Your task to perform on an android device: Find coffee shops on Maps Image 0: 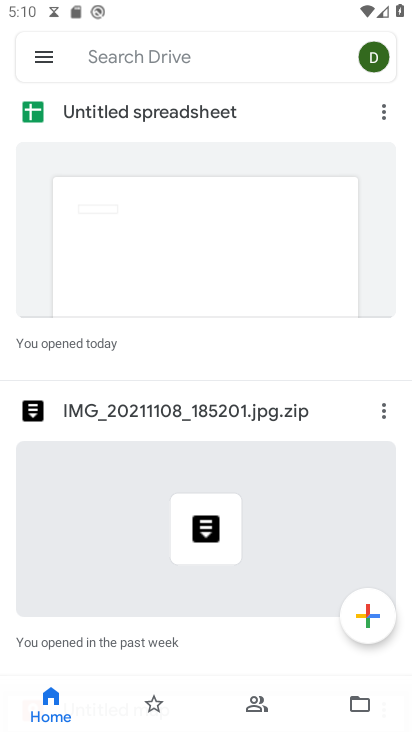
Step 0: press home button
Your task to perform on an android device: Find coffee shops on Maps Image 1: 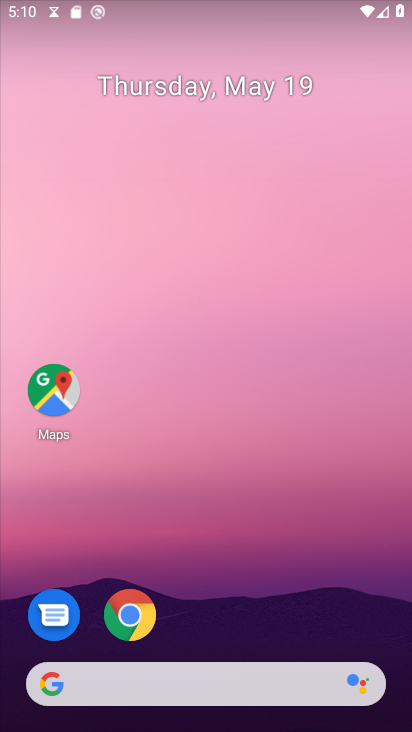
Step 1: drag from (215, 662) to (227, 34)
Your task to perform on an android device: Find coffee shops on Maps Image 2: 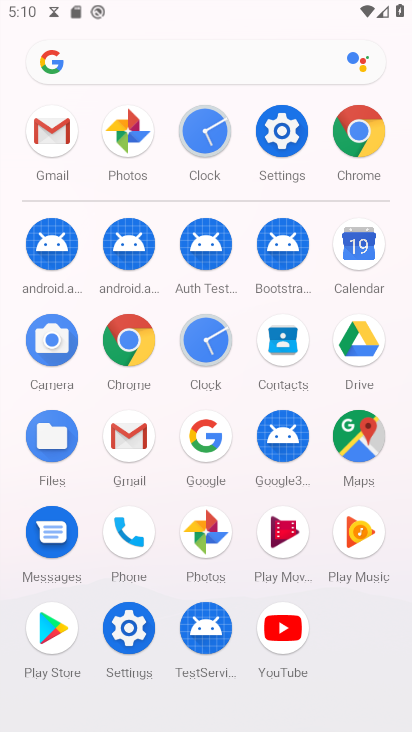
Step 2: click (344, 444)
Your task to perform on an android device: Find coffee shops on Maps Image 3: 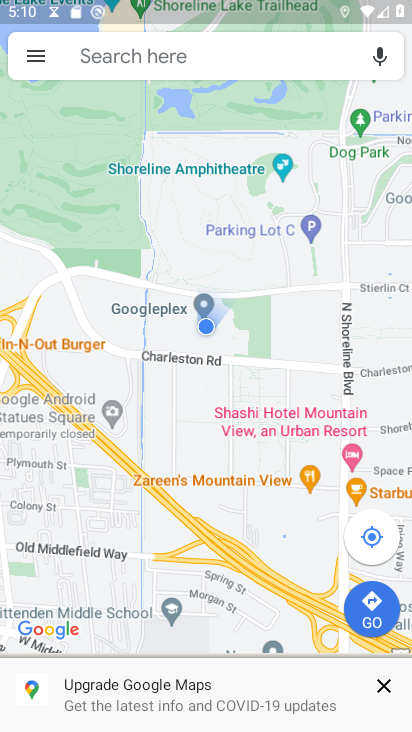
Step 3: click (36, 52)
Your task to perform on an android device: Find coffee shops on Maps Image 4: 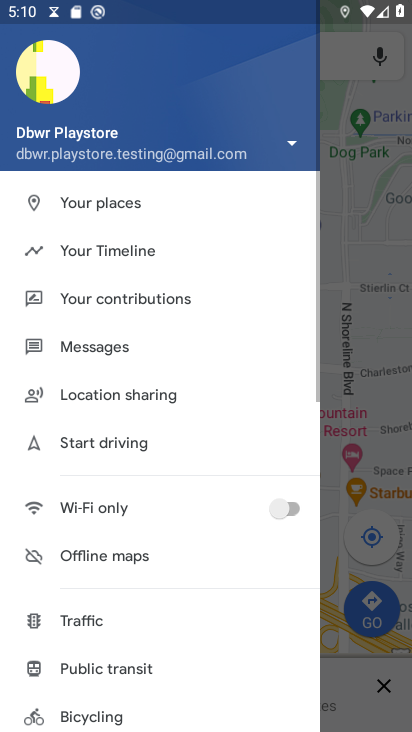
Step 4: click (351, 167)
Your task to perform on an android device: Find coffee shops on Maps Image 5: 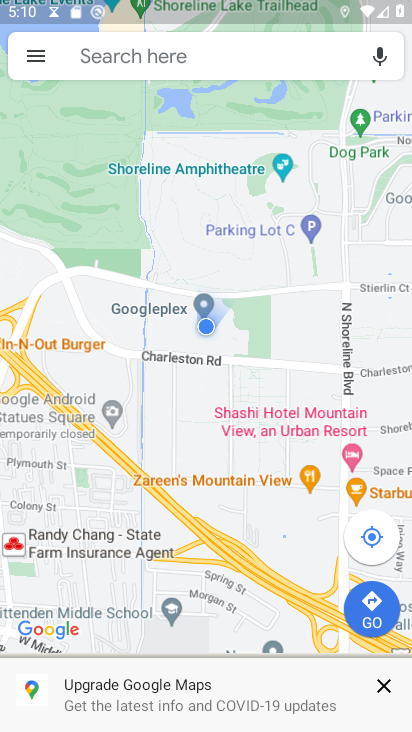
Step 5: click (261, 48)
Your task to perform on an android device: Find coffee shops on Maps Image 6: 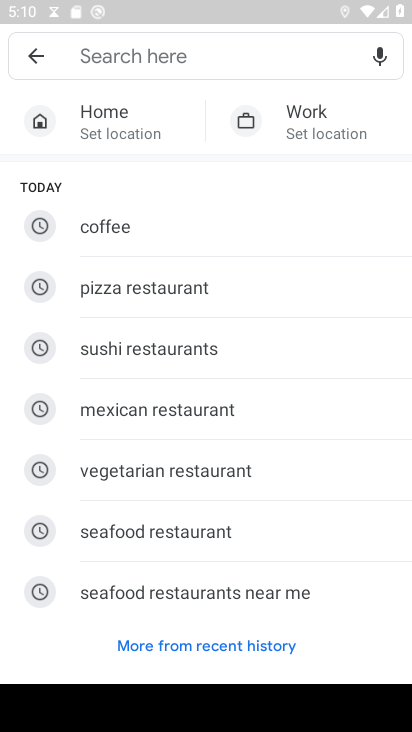
Step 6: type "coffee shops"
Your task to perform on an android device: Find coffee shops on Maps Image 7: 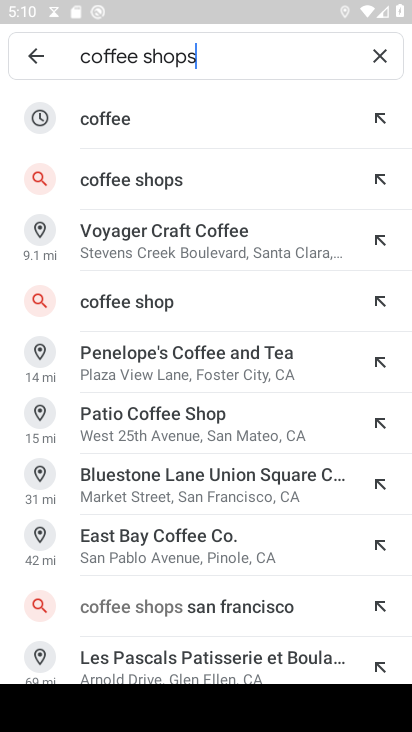
Step 7: click (261, 170)
Your task to perform on an android device: Find coffee shops on Maps Image 8: 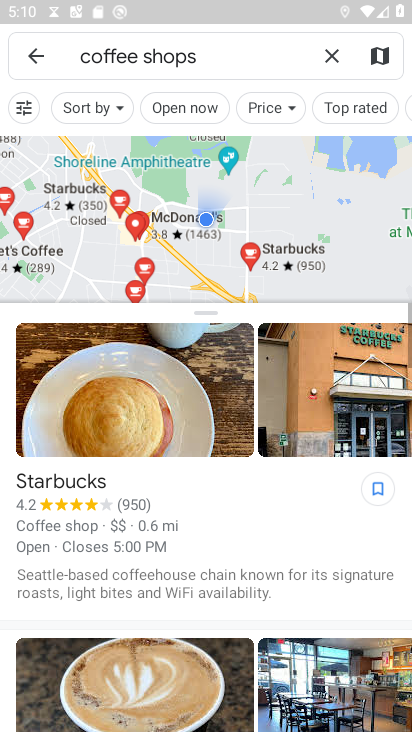
Step 8: task complete